Your task to perform on an android device: change alarm snooze length Image 0: 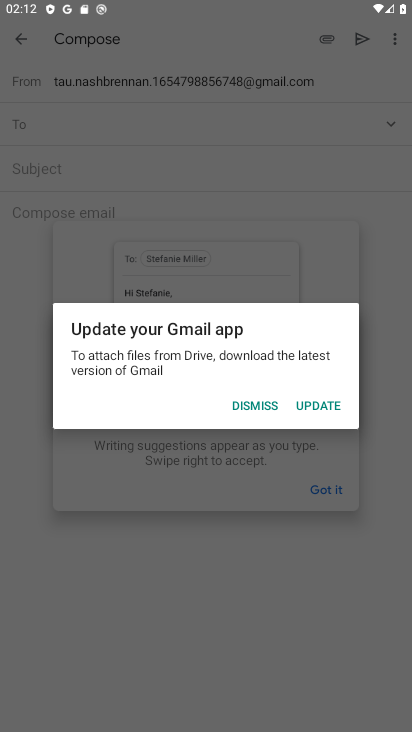
Step 0: press home button
Your task to perform on an android device: change alarm snooze length Image 1: 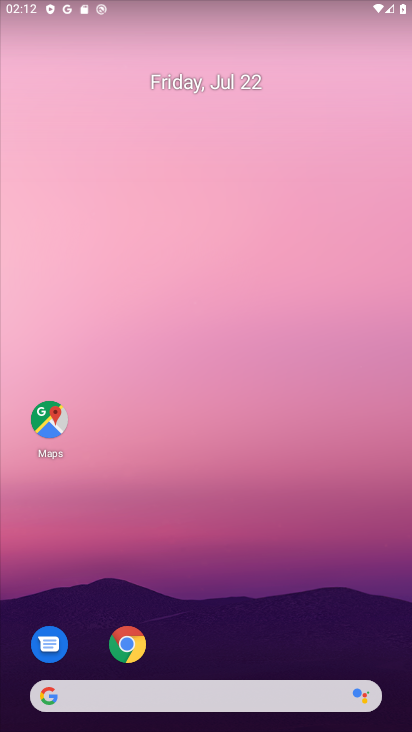
Step 1: drag from (219, 718) to (265, 28)
Your task to perform on an android device: change alarm snooze length Image 2: 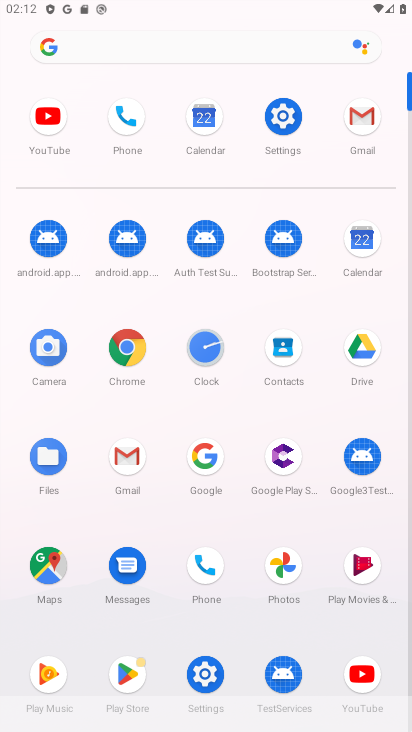
Step 2: click (208, 361)
Your task to perform on an android device: change alarm snooze length Image 3: 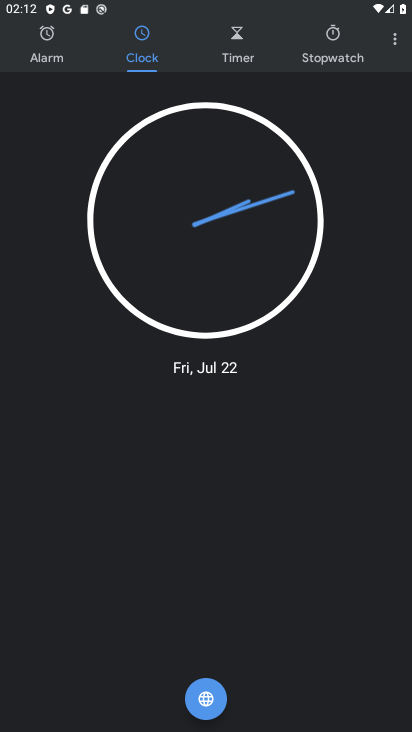
Step 3: click (389, 36)
Your task to perform on an android device: change alarm snooze length Image 4: 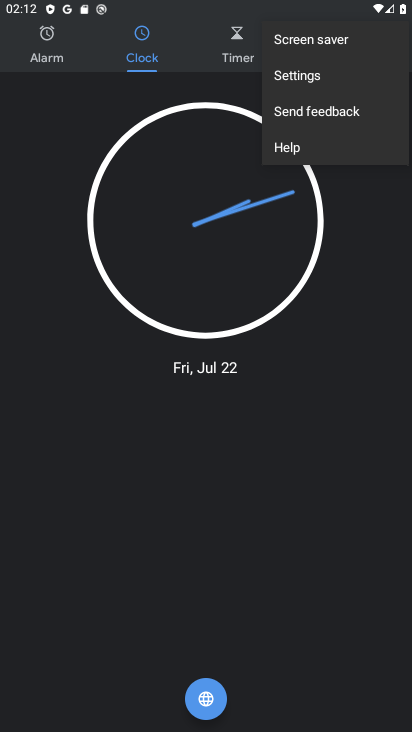
Step 4: click (348, 75)
Your task to perform on an android device: change alarm snooze length Image 5: 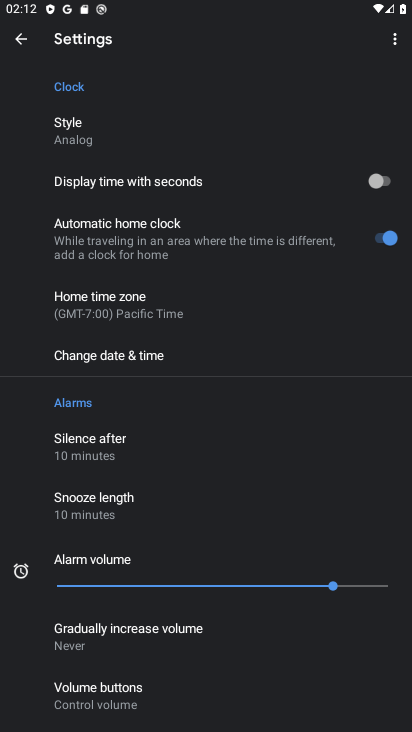
Step 5: click (116, 499)
Your task to perform on an android device: change alarm snooze length Image 6: 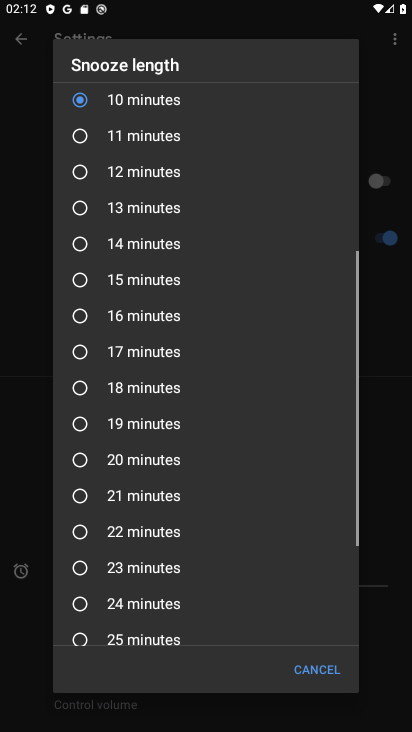
Step 6: click (116, 499)
Your task to perform on an android device: change alarm snooze length Image 7: 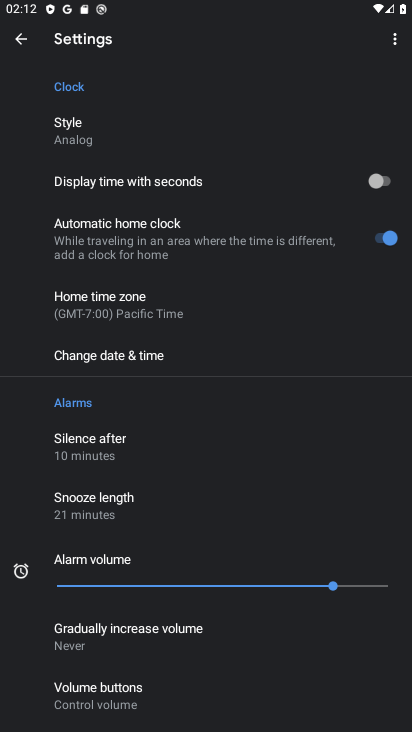
Step 7: task complete